Your task to perform on an android device: turn off airplane mode Image 0: 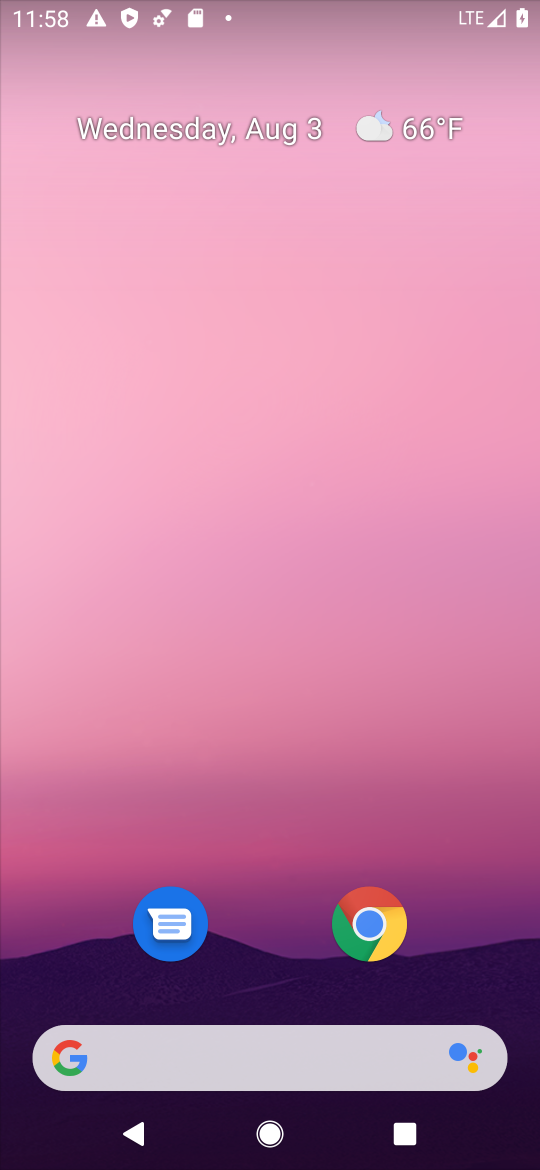
Step 0: drag from (38, 1074) to (509, 492)
Your task to perform on an android device: turn off airplane mode Image 1: 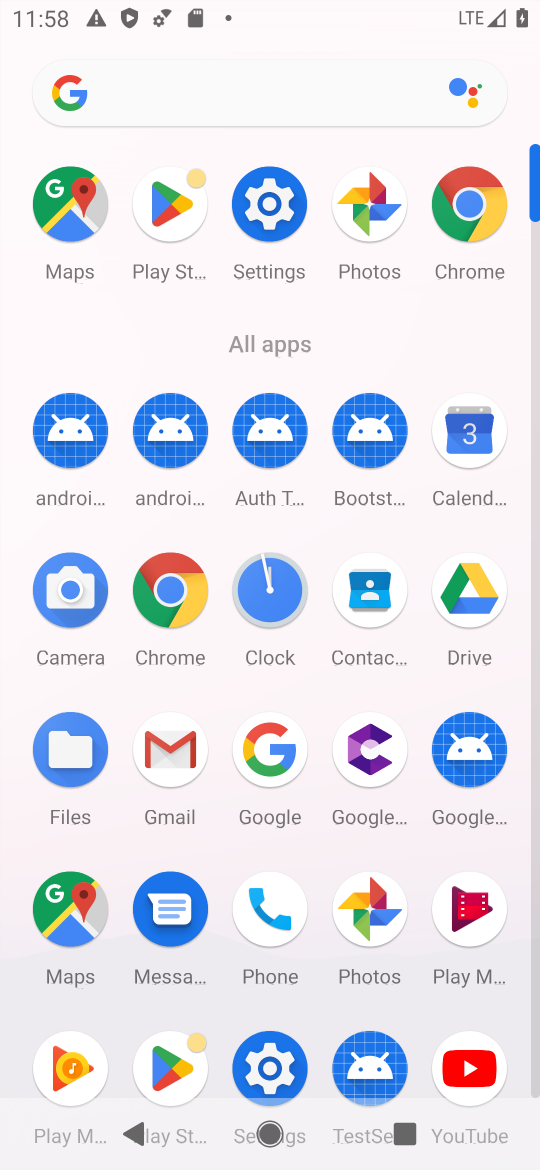
Step 1: click (269, 1064)
Your task to perform on an android device: turn off airplane mode Image 2: 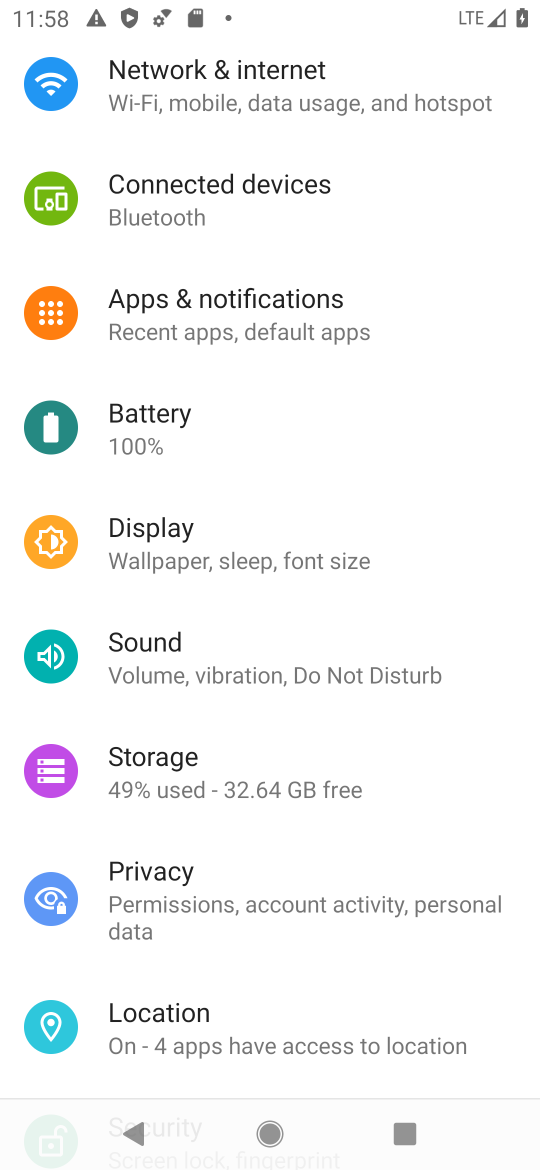
Step 2: click (193, 76)
Your task to perform on an android device: turn off airplane mode Image 3: 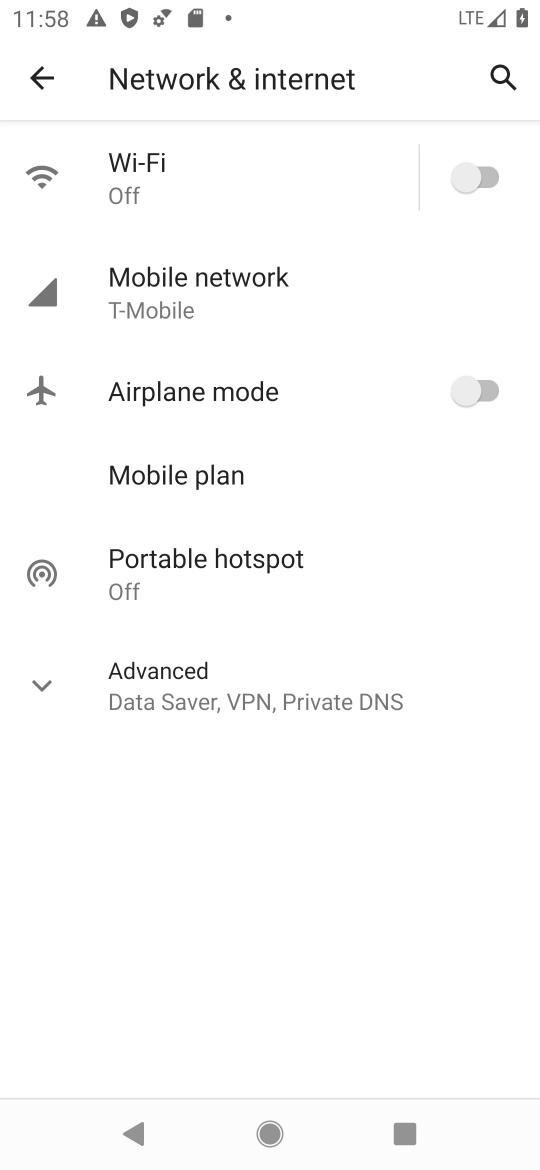
Step 3: click (182, 398)
Your task to perform on an android device: turn off airplane mode Image 4: 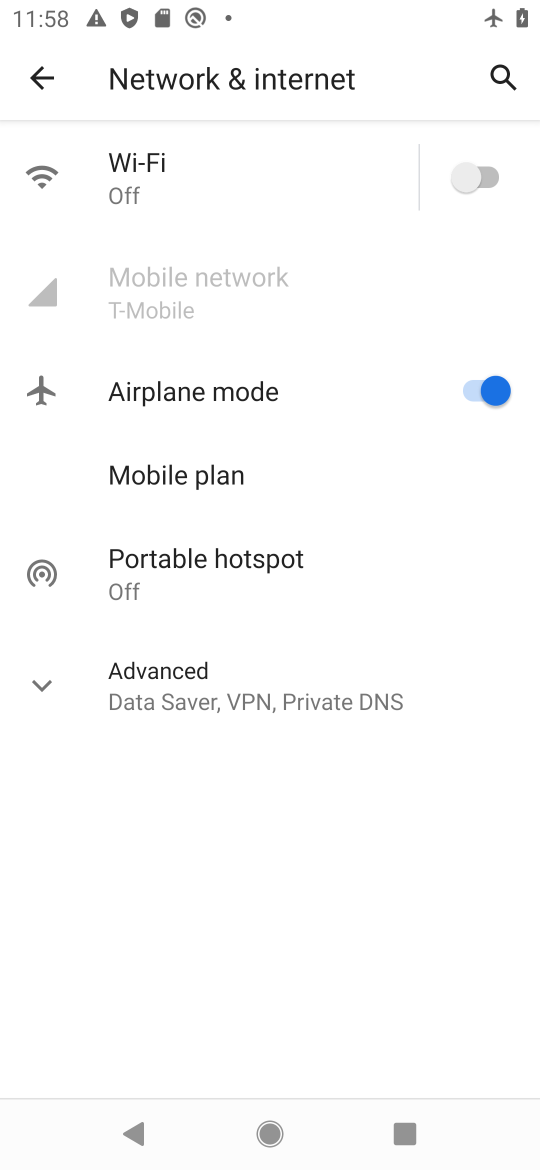
Step 4: click (182, 398)
Your task to perform on an android device: turn off airplane mode Image 5: 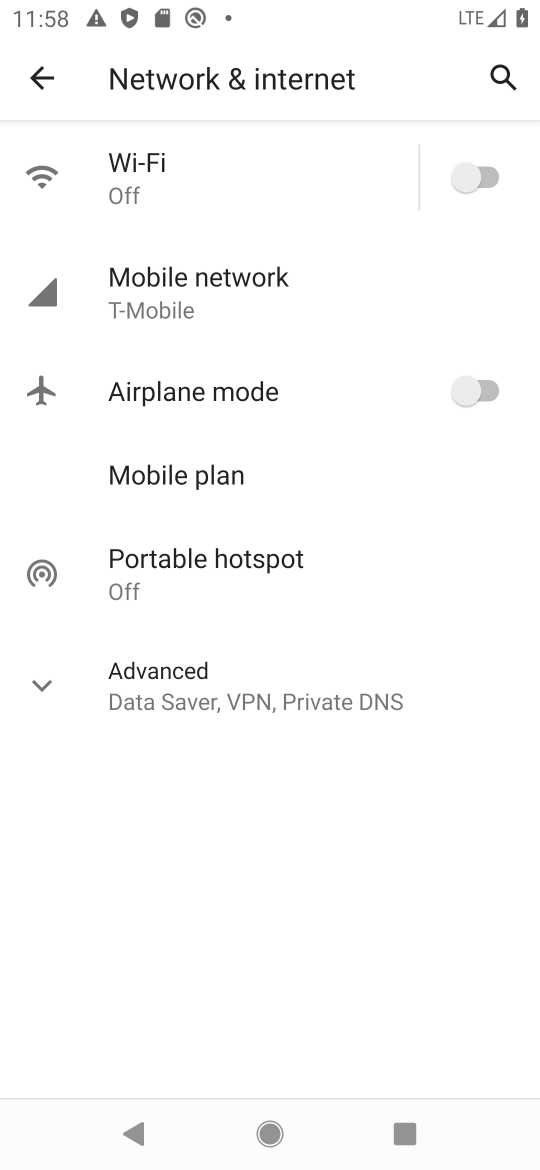
Step 5: task complete